Your task to perform on an android device: When is my next appointment? Image 0: 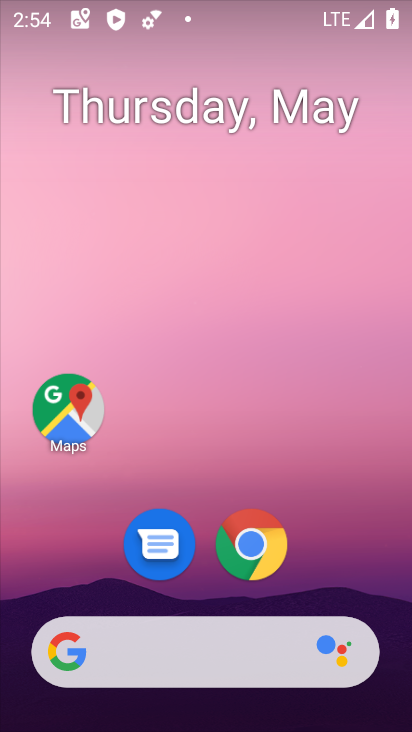
Step 0: drag from (250, 641) to (350, 50)
Your task to perform on an android device: When is my next appointment? Image 1: 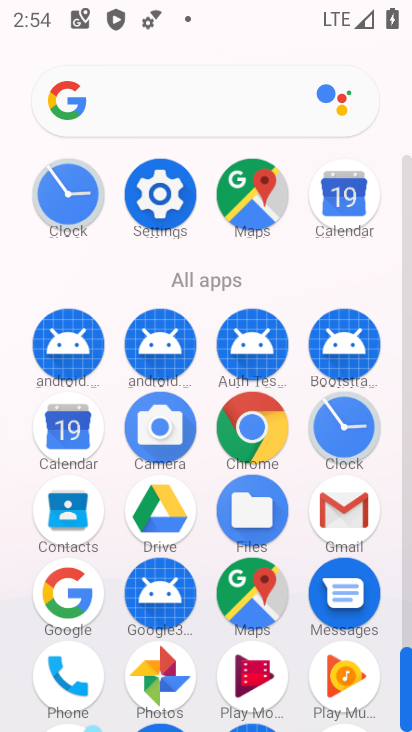
Step 1: click (66, 443)
Your task to perform on an android device: When is my next appointment? Image 2: 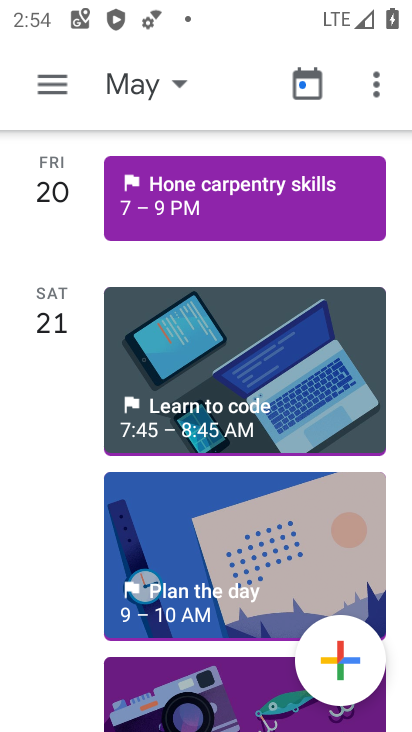
Step 2: task complete